Your task to perform on an android device: Open Google Chrome and open the bookmarks view Image 0: 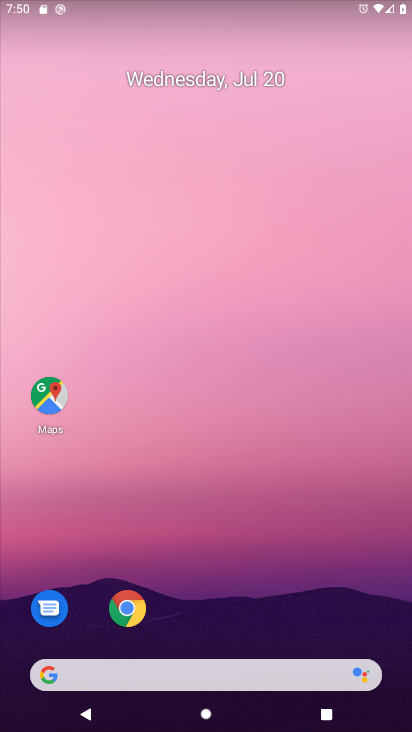
Step 0: drag from (198, 639) to (177, 223)
Your task to perform on an android device: Open Google Chrome and open the bookmarks view Image 1: 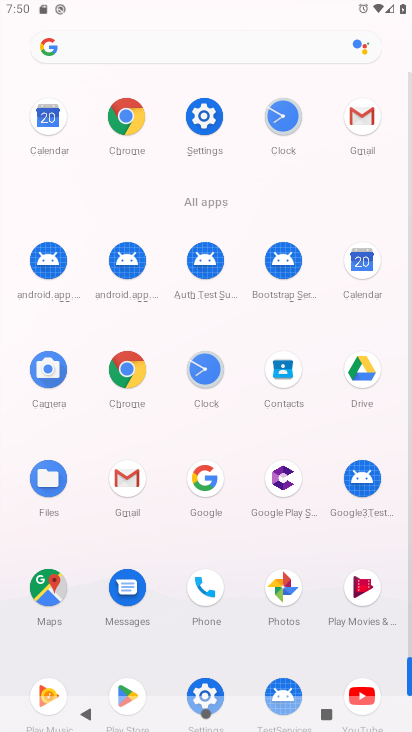
Step 1: click (121, 113)
Your task to perform on an android device: Open Google Chrome and open the bookmarks view Image 2: 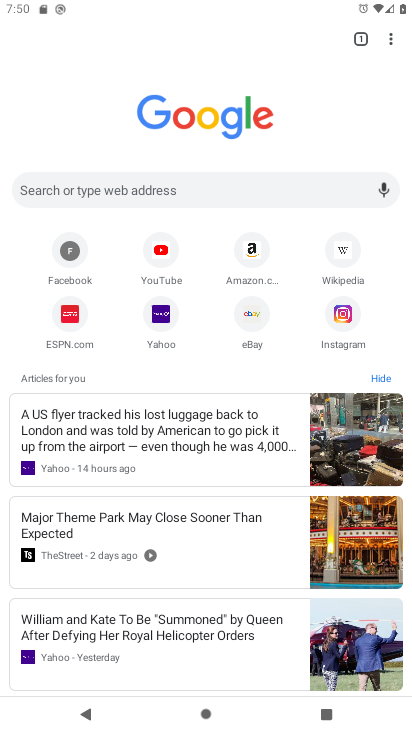
Step 2: click (394, 32)
Your task to perform on an android device: Open Google Chrome and open the bookmarks view Image 3: 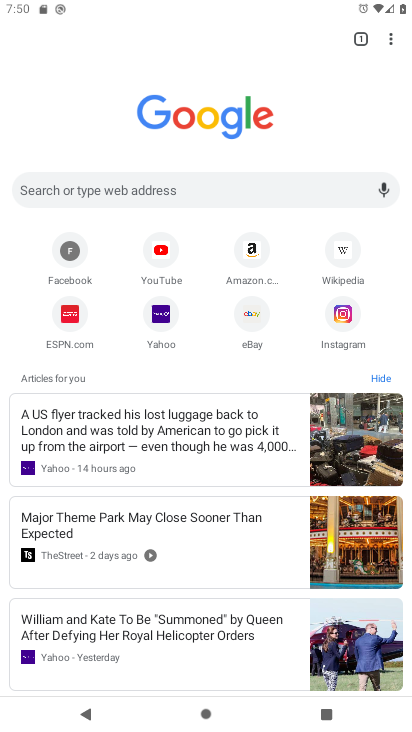
Step 3: click (394, 32)
Your task to perform on an android device: Open Google Chrome and open the bookmarks view Image 4: 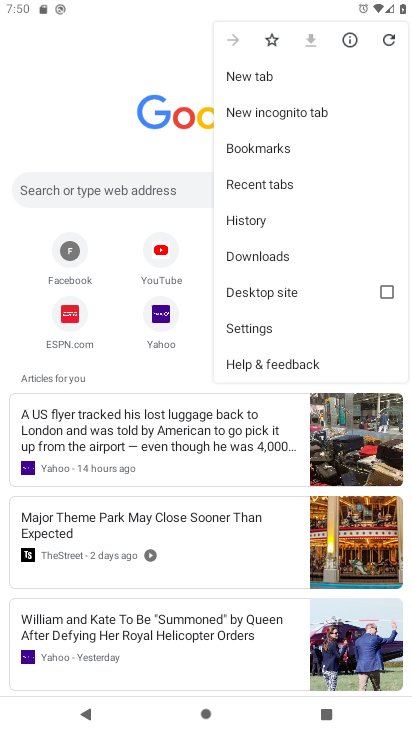
Step 4: click (258, 144)
Your task to perform on an android device: Open Google Chrome and open the bookmarks view Image 5: 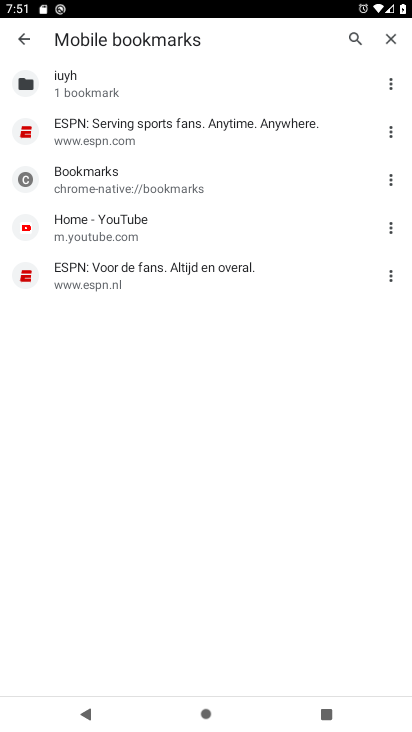
Step 5: task complete